Your task to perform on an android device: What's the weather today? Image 0: 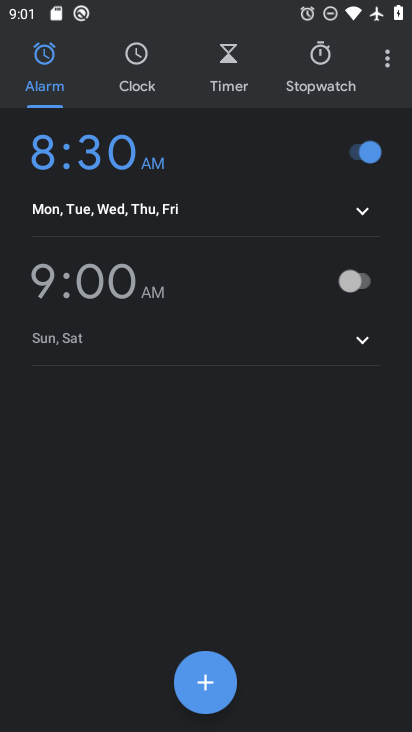
Step 0: press home button
Your task to perform on an android device: What's the weather today? Image 1: 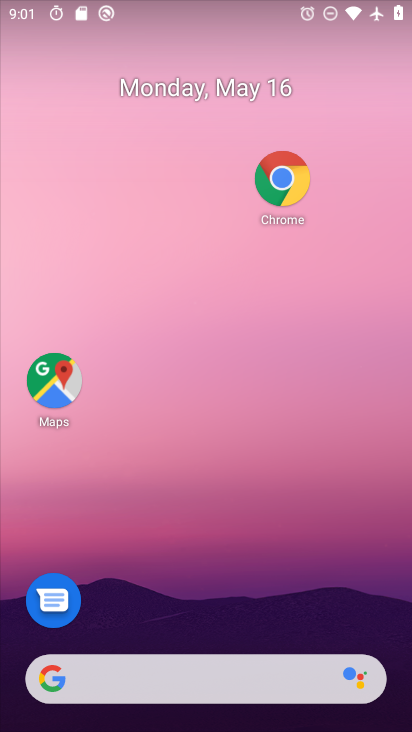
Step 1: click (60, 679)
Your task to perform on an android device: What's the weather today? Image 2: 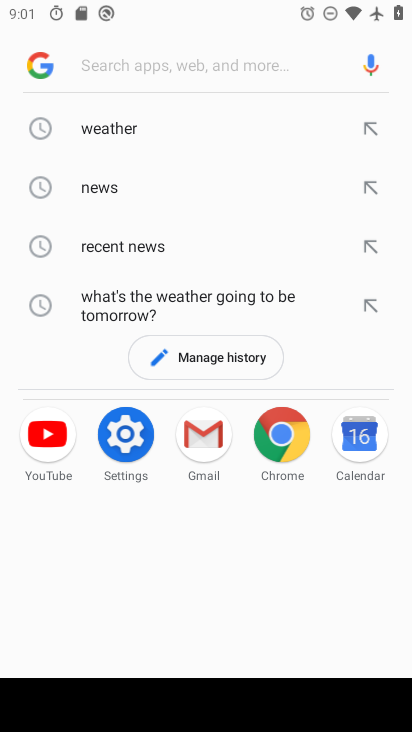
Step 2: click (135, 130)
Your task to perform on an android device: What's the weather today? Image 3: 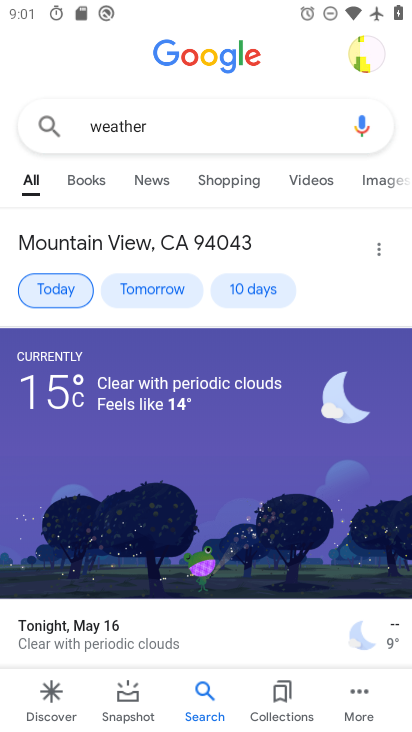
Step 3: task complete